Your task to perform on an android device: Open network settings Image 0: 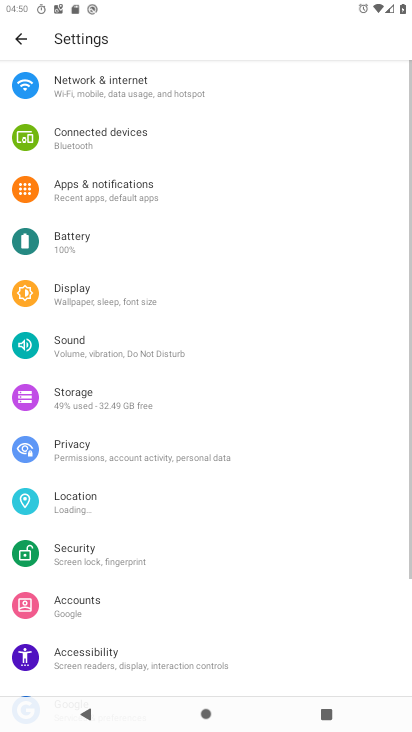
Step 0: press home button
Your task to perform on an android device: Open network settings Image 1: 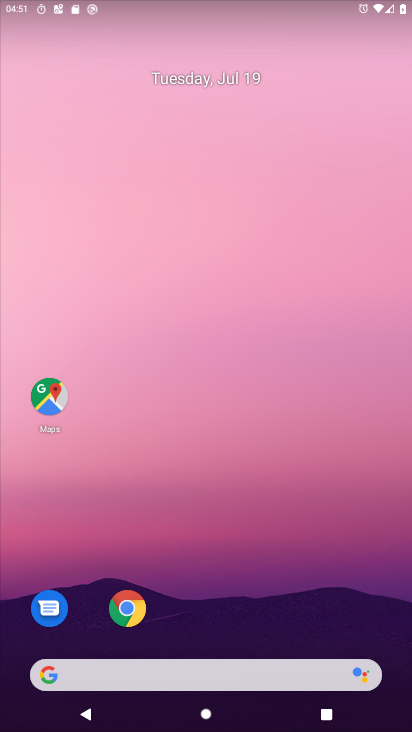
Step 1: drag from (205, 679) to (232, 252)
Your task to perform on an android device: Open network settings Image 2: 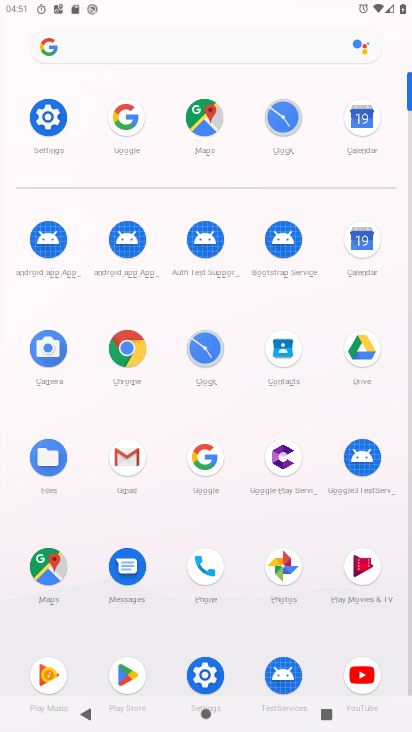
Step 2: click (48, 116)
Your task to perform on an android device: Open network settings Image 3: 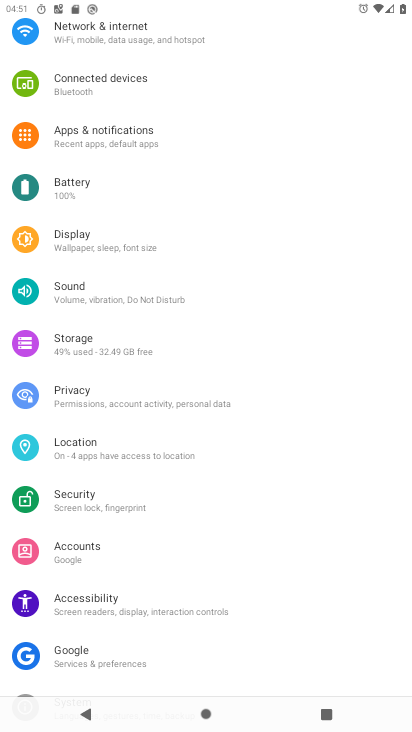
Step 3: click (118, 39)
Your task to perform on an android device: Open network settings Image 4: 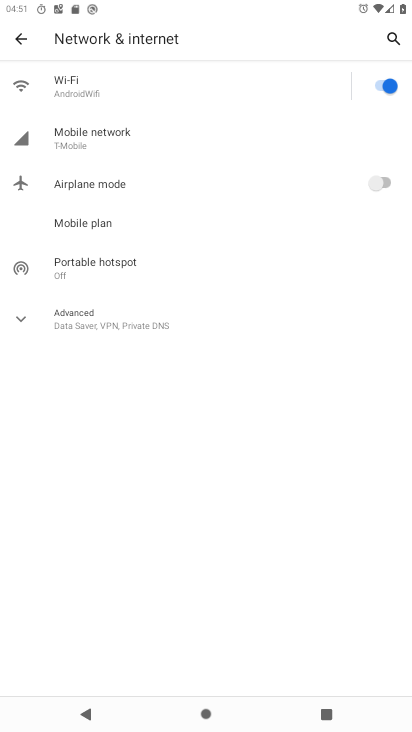
Step 4: task complete